Your task to perform on an android device: Go to accessibility settings Image 0: 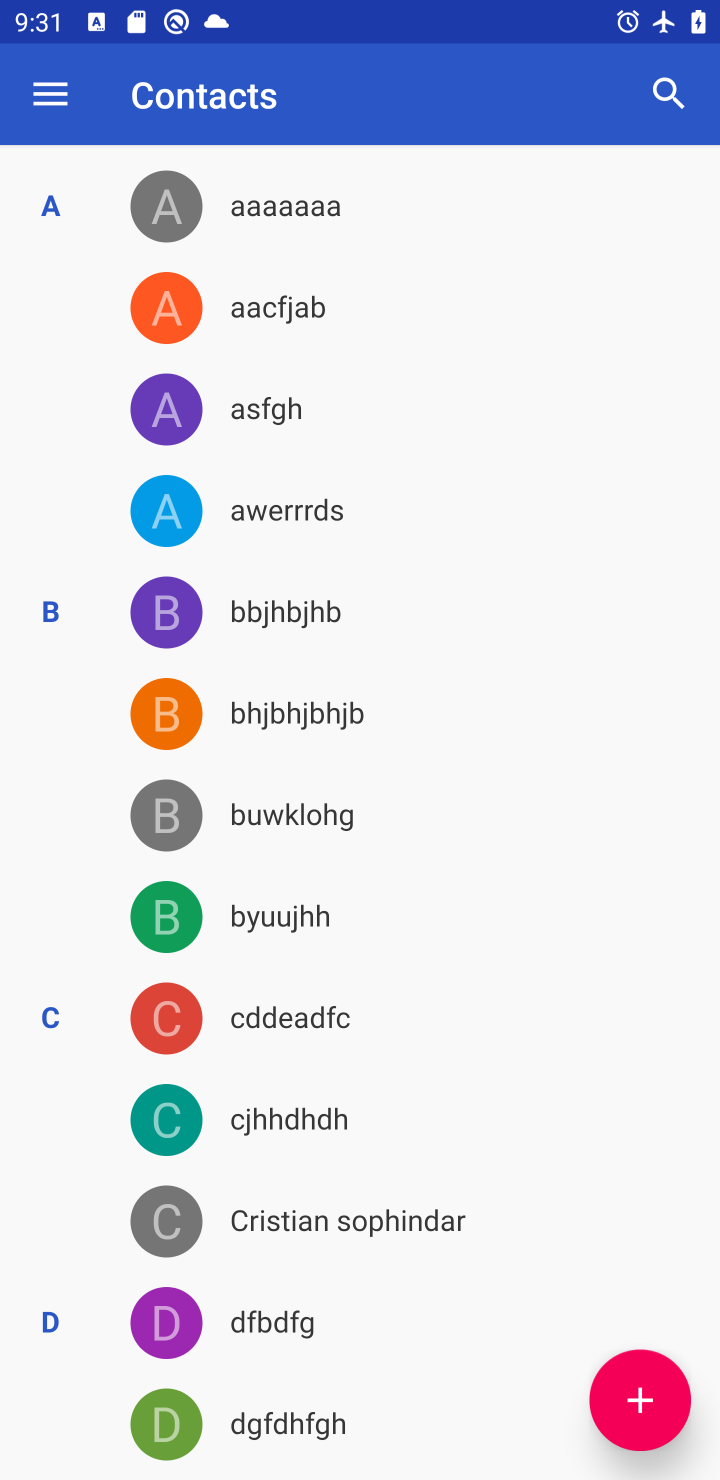
Step 0: drag from (343, 1327) to (272, 173)
Your task to perform on an android device: Go to accessibility settings Image 1: 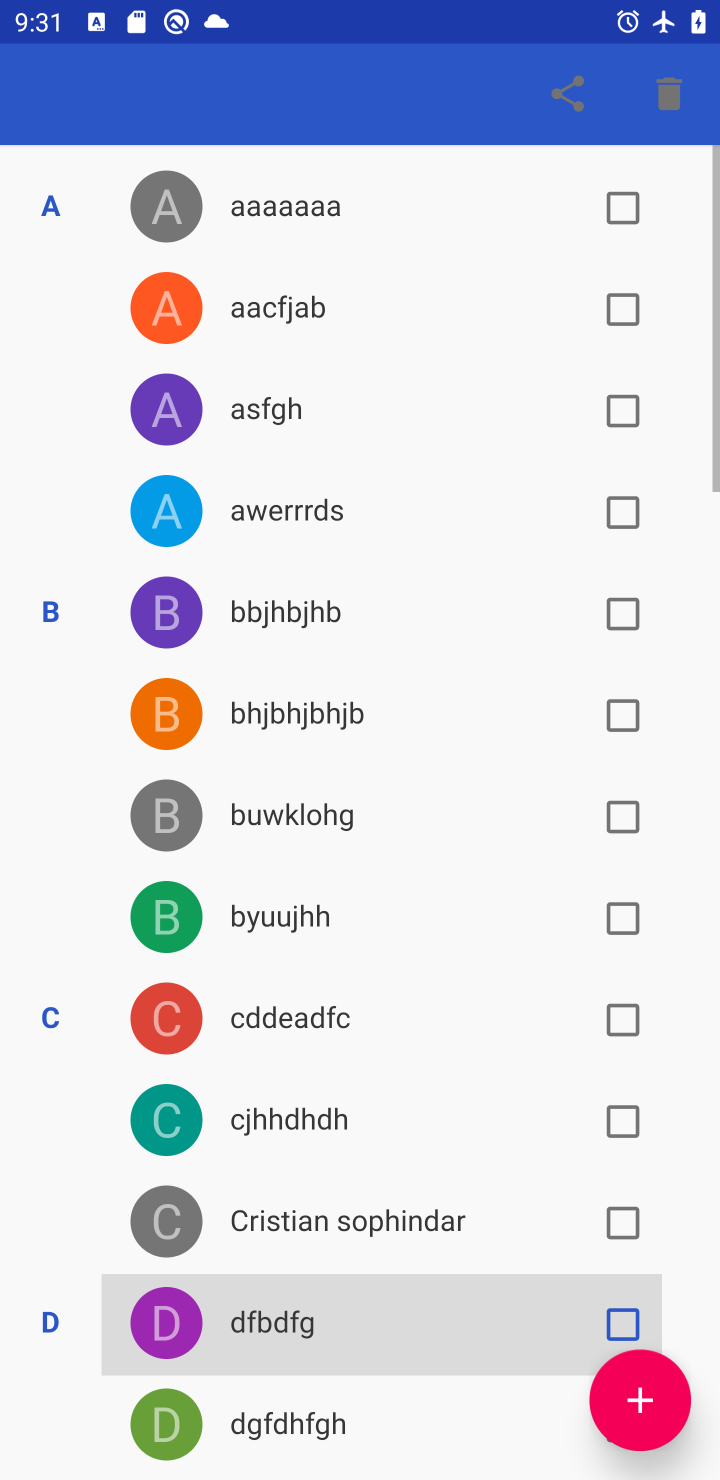
Step 1: press home button
Your task to perform on an android device: Go to accessibility settings Image 2: 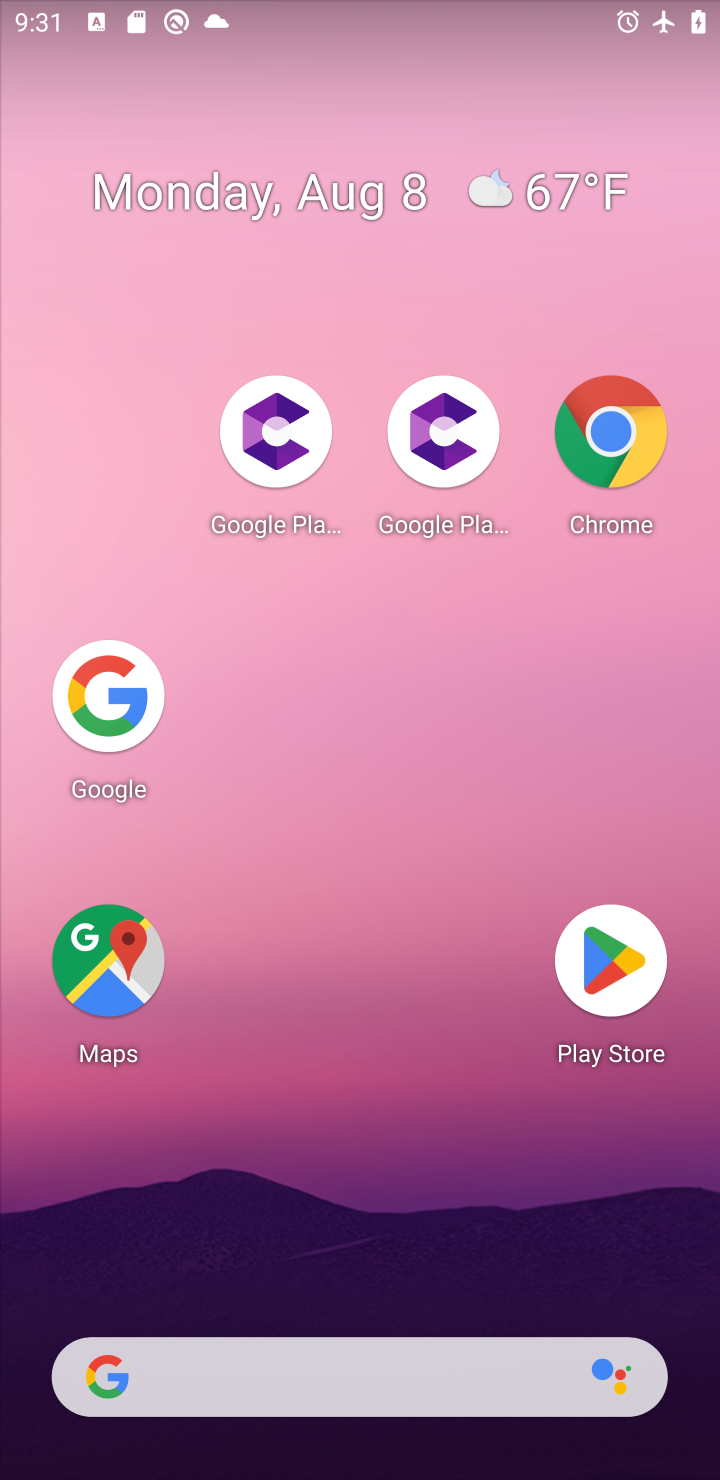
Step 2: drag from (287, 1279) to (170, 262)
Your task to perform on an android device: Go to accessibility settings Image 3: 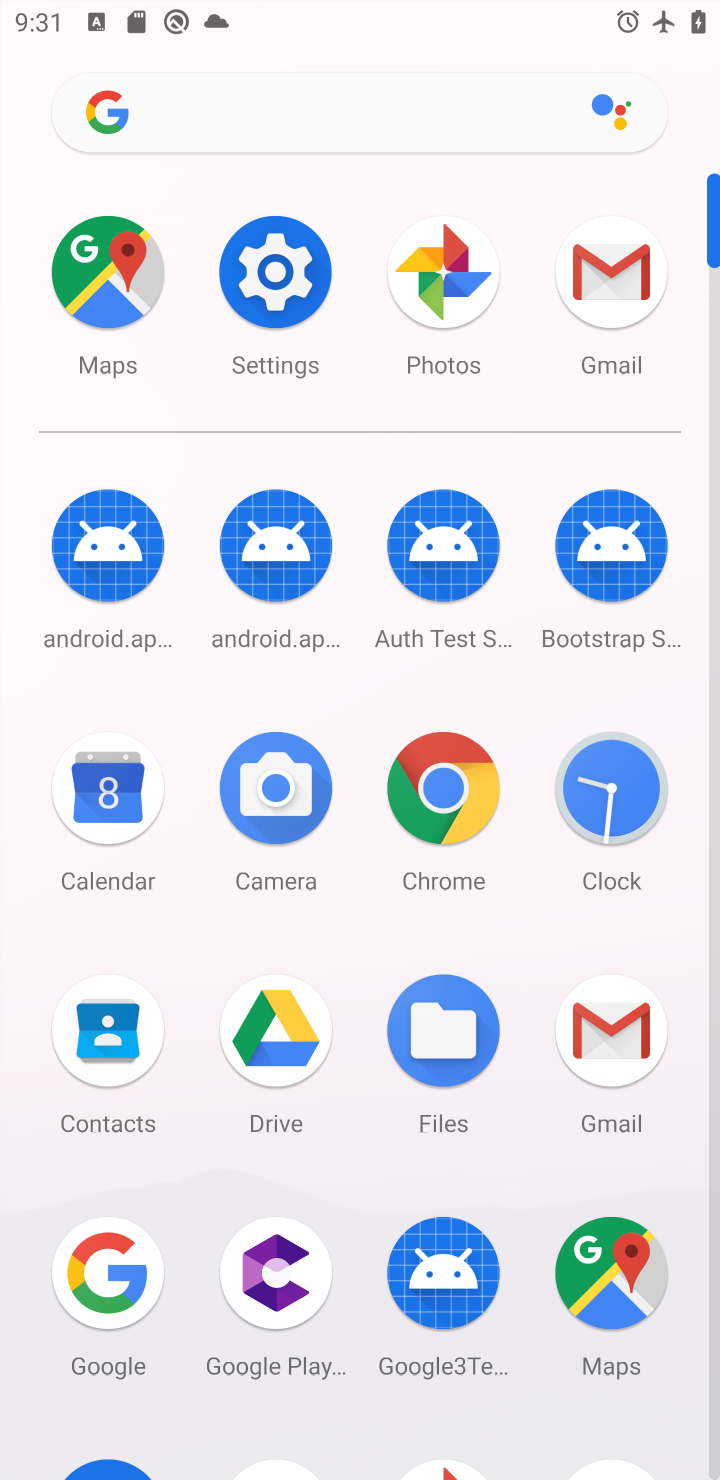
Step 3: click (261, 262)
Your task to perform on an android device: Go to accessibility settings Image 4: 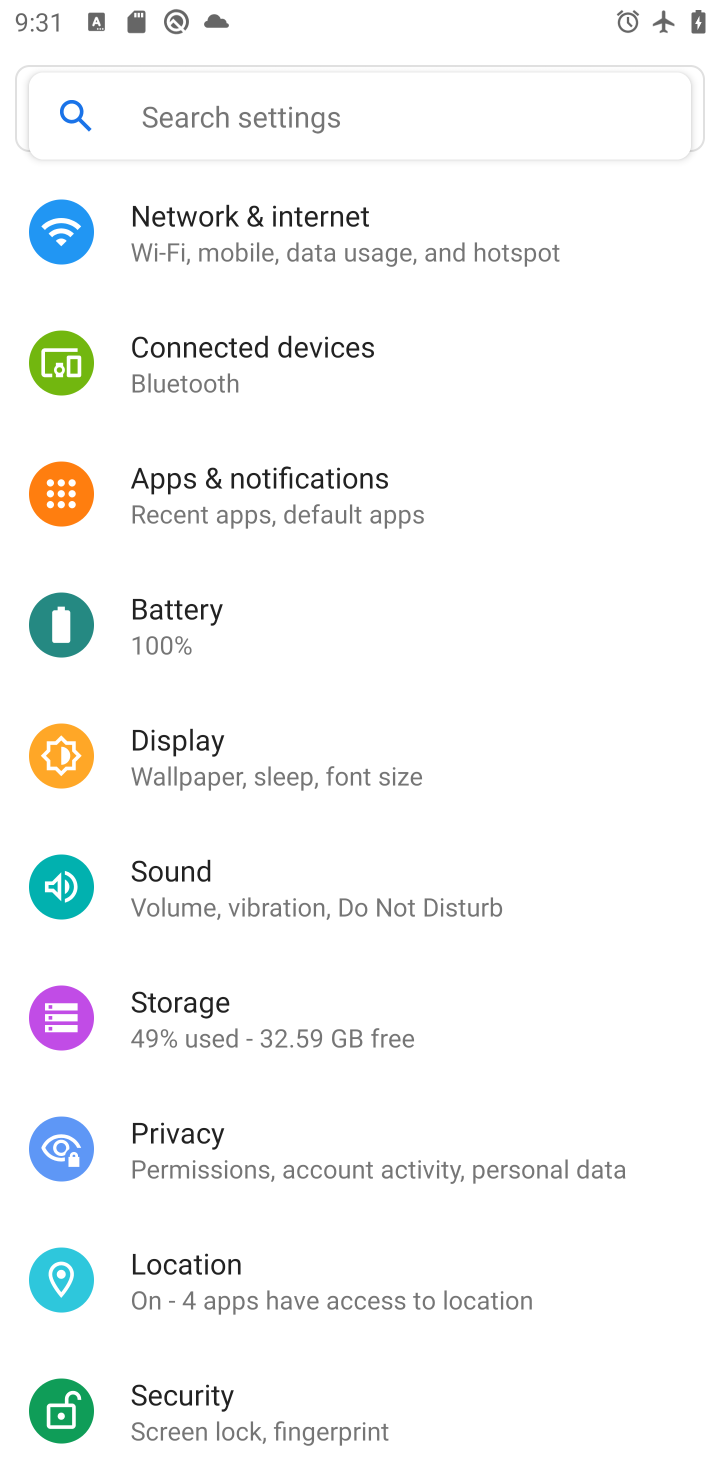
Step 4: drag from (95, 1217) to (172, 345)
Your task to perform on an android device: Go to accessibility settings Image 5: 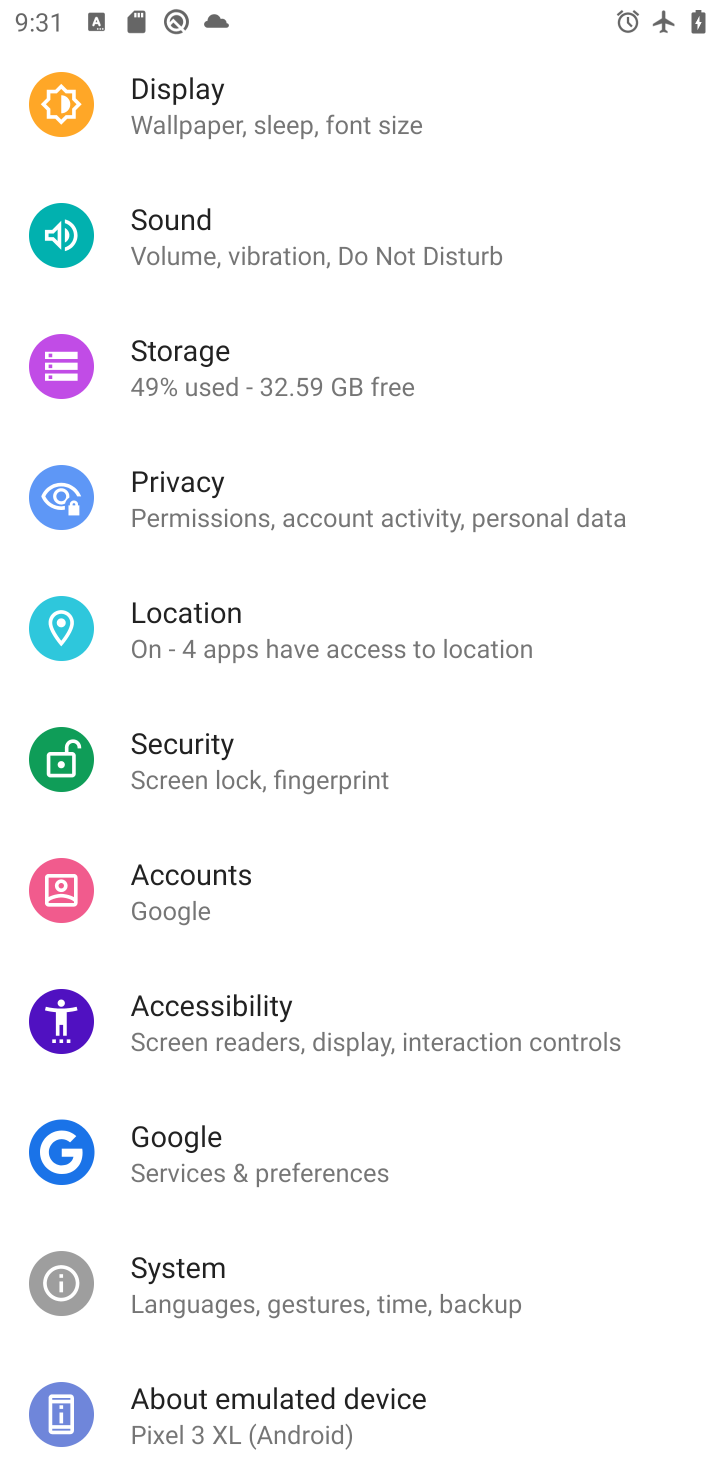
Step 5: click (124, 1039)
Your task to perform on an android device: Go to accessibility settings Image 6: 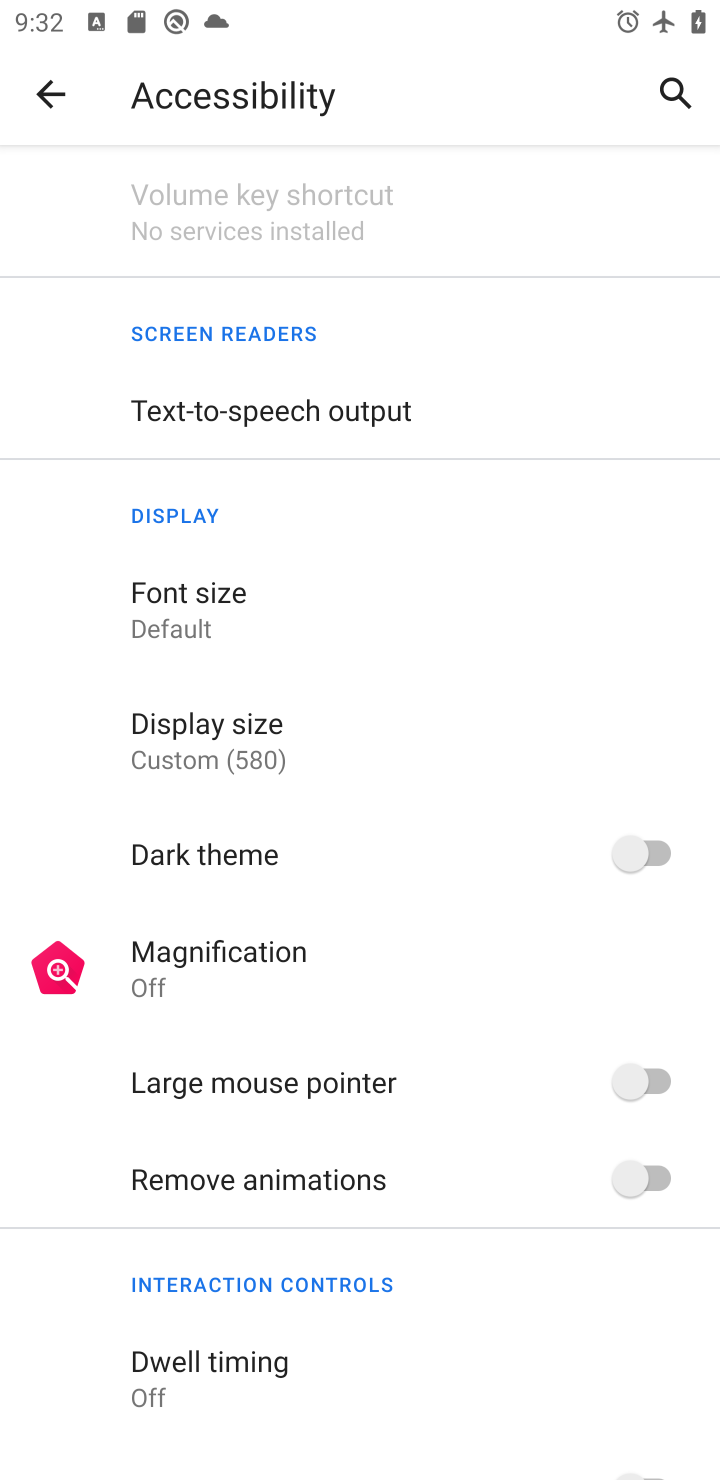
Step 6: task complete